Your task to perform on an android device: allow cookies in the chrome app Image 0: 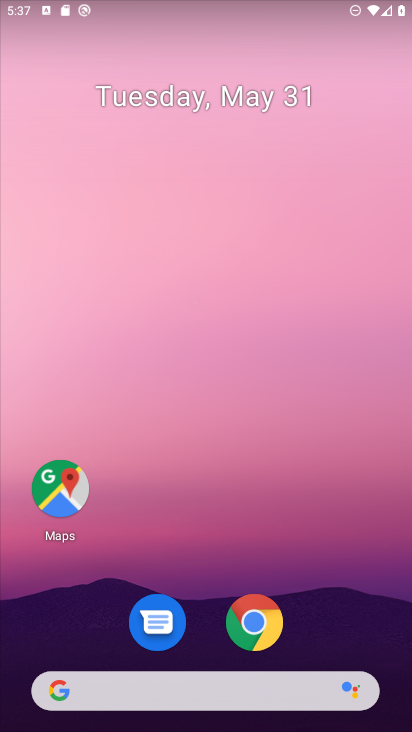
Step 0: drag from (263, 665) to (295, 49)
Your task to perform on an android device: allow cookies in the chrome app Image 1: 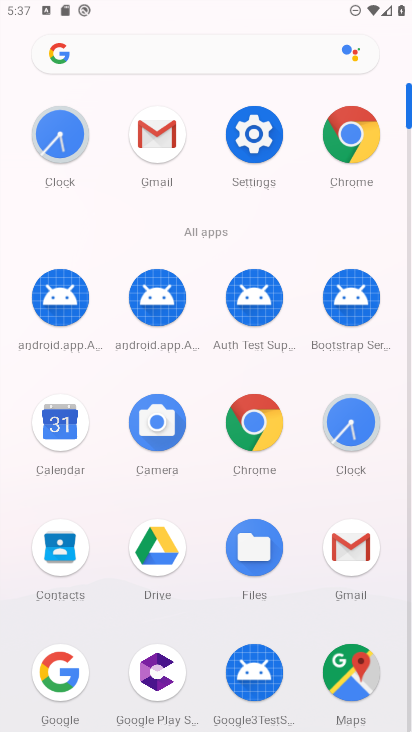
Step 1: click (261, 406)
Your task to perform on an android device: allow cookies in the chrome app Image 2: 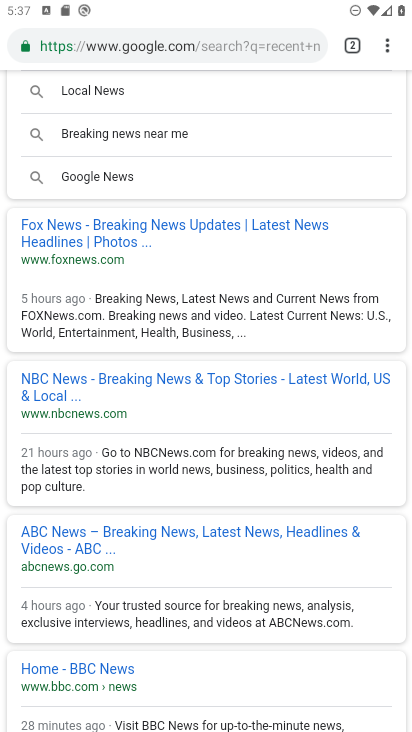
Step 2: drag from (385, 39) to (225, 510)
Your task to perform on an android device: allow cookies in the chrome app Image 3: 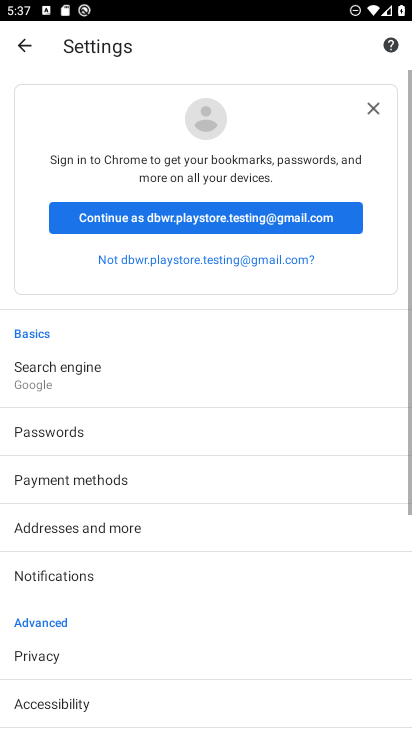
Step 3: drag from (116, 659) to (186, 300)
Your task to perform on an android device: allow cookies in the chrome app Image 4: 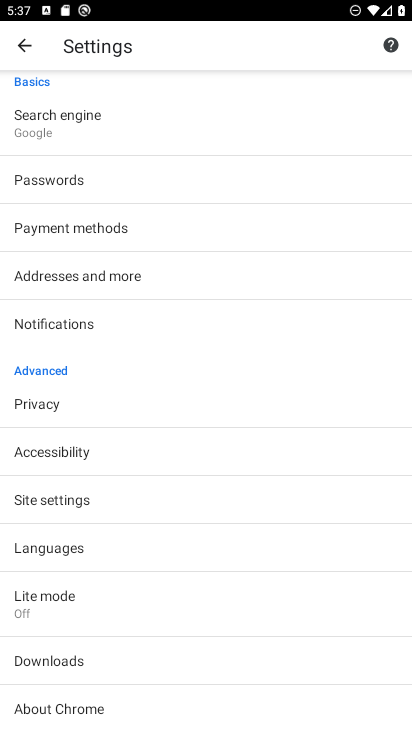
Step 4: click (74, 504)
Your task to perform on an android device: allow cookies in the chrome app Image 5: 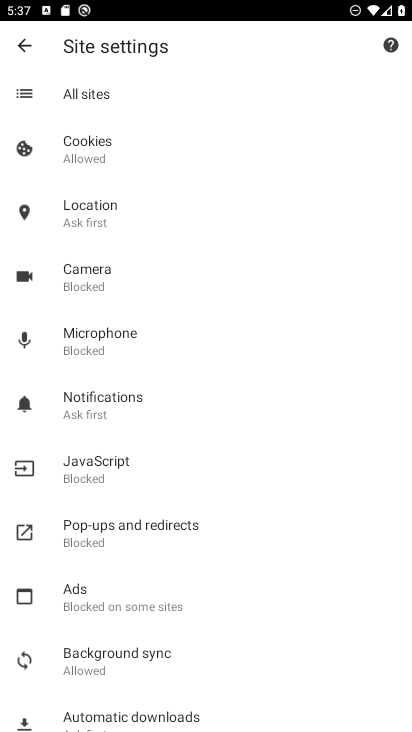
Step 5: click (103, 159)
Your task to perform on an android device: allow cookies in the chrome app Image 6: 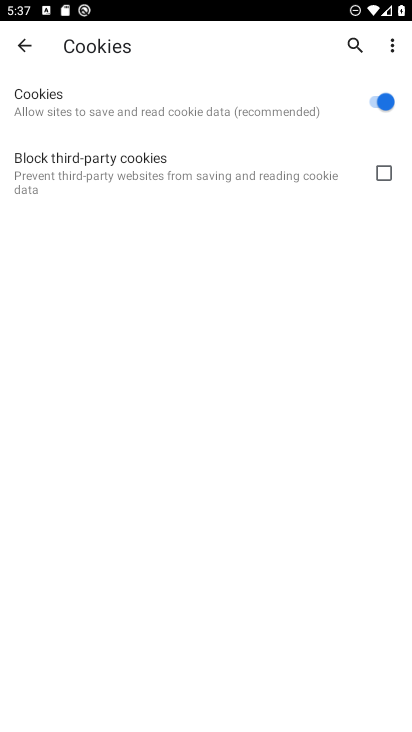
Step 6: task complete